Your task to perform on an android device: Open battery settings Image 0: 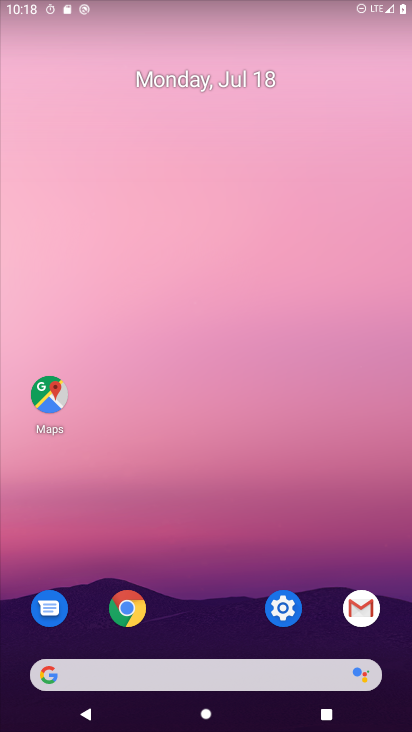
Step 0: press home button
Your task to perform on an android device: Open battery settings Image 1: 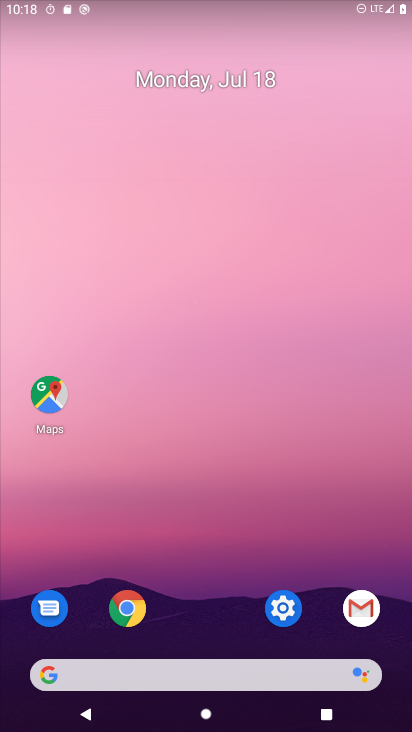
Step 1: click (280, 598)
Your task to perform on an android device: Open battery settings Image 2: 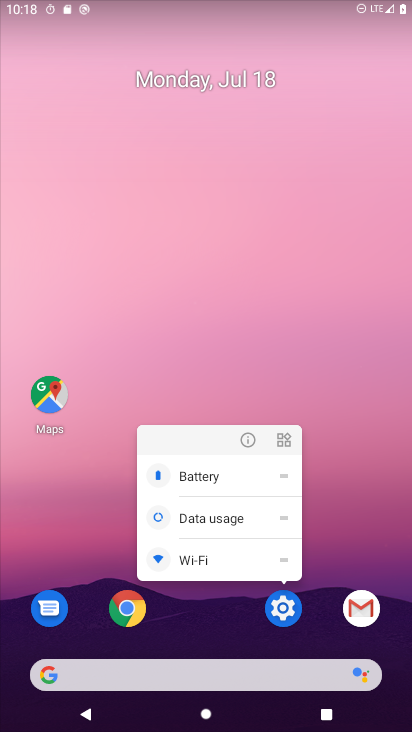
Step 2: click (280, 613)
Your task to perform on an android device: Open battery settings Image 3: 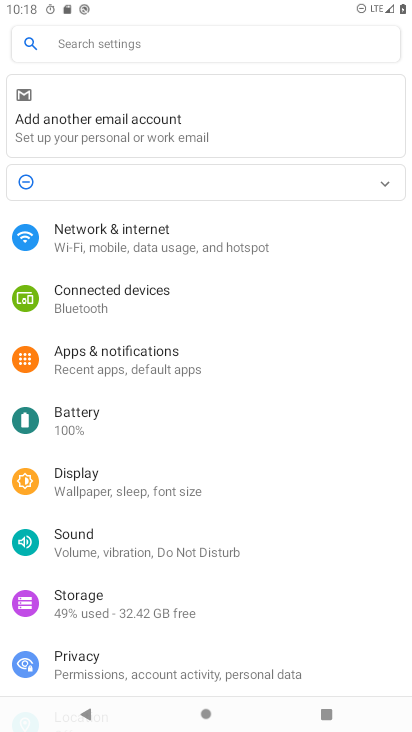
Step 3: click (90, 421)
Your task to perform on an android device: Open battery settings Image 4: 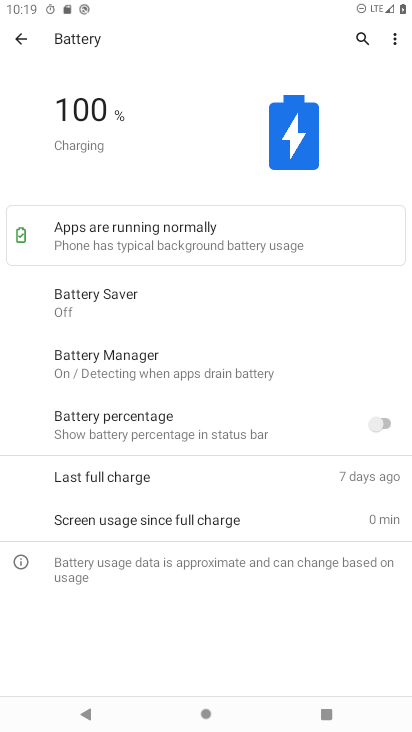
Step 4: task complete